Your task to perform on an android device: manage bookmarks in the chrome app Image 0: 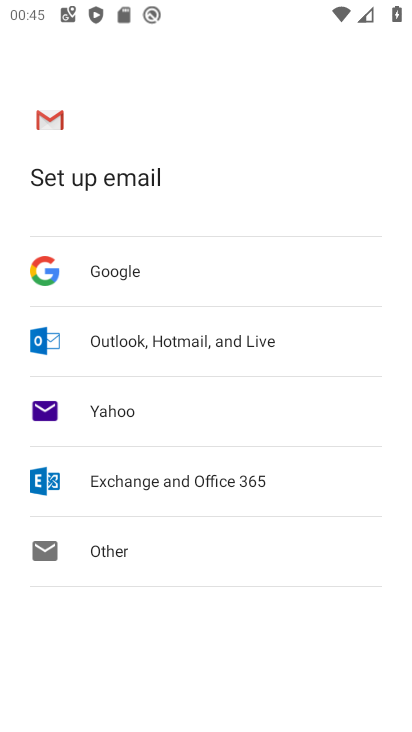
Step 0: press home button
Your task to perform on an android device: manage bookmarks in the chrome app Image 1: 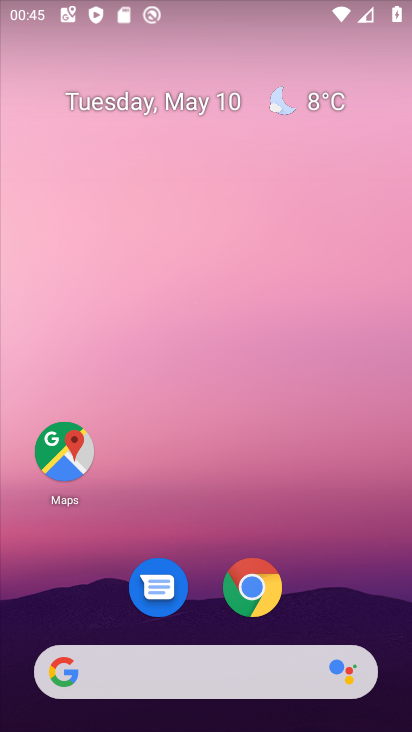
Step 1: drag from (395, 675) to (391, 195)
Your task to perform on an android device: manage bookmarks in the chrome app Image 2: 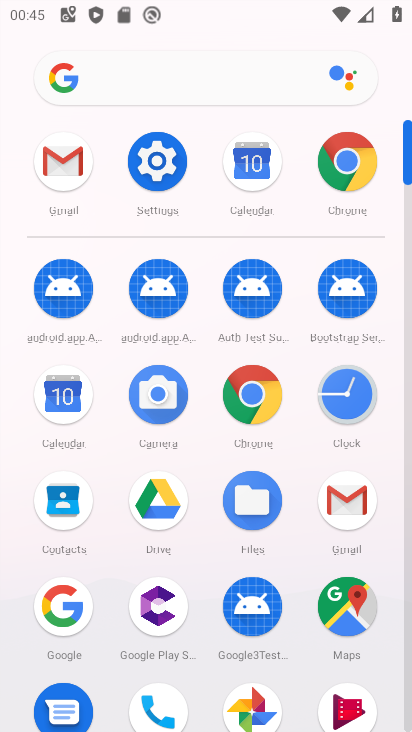
Step 2: click (355, 152)
Your task to perform on an android device: manage bookmarks in the chrome app Image 3: 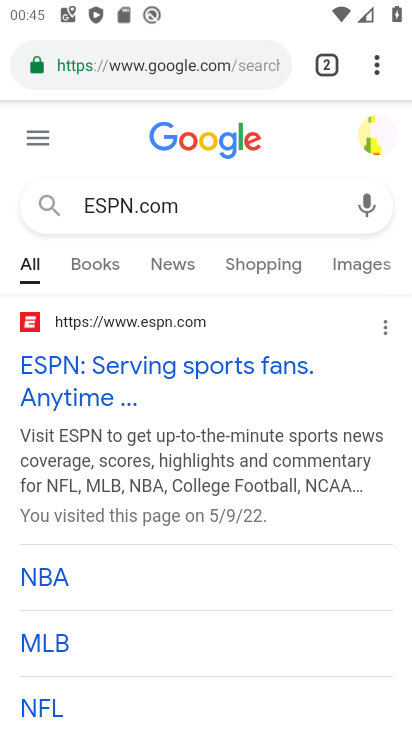
Step 3: click (373, 62)
Your task to perform on an android device: manage bookmarks in the chrome app Image 4: 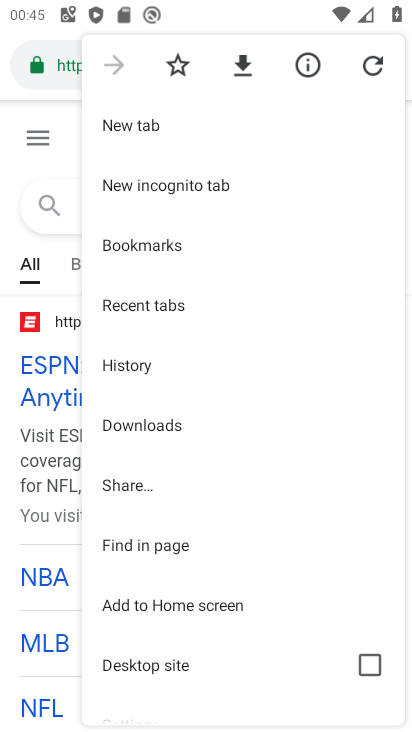
Step 4: click (161, 241)
Your task to perform on an android device: manage bookmarks in the chrome app Image 5: 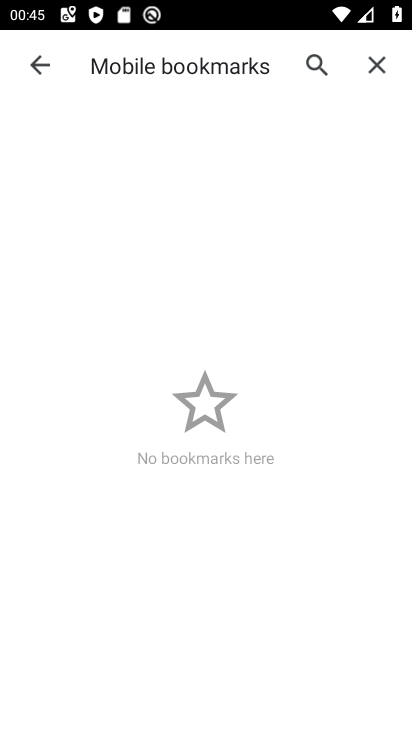
Step 5: task complete